Your task to perform on an android device: Empty the shopping cart on target.com. Image 0: 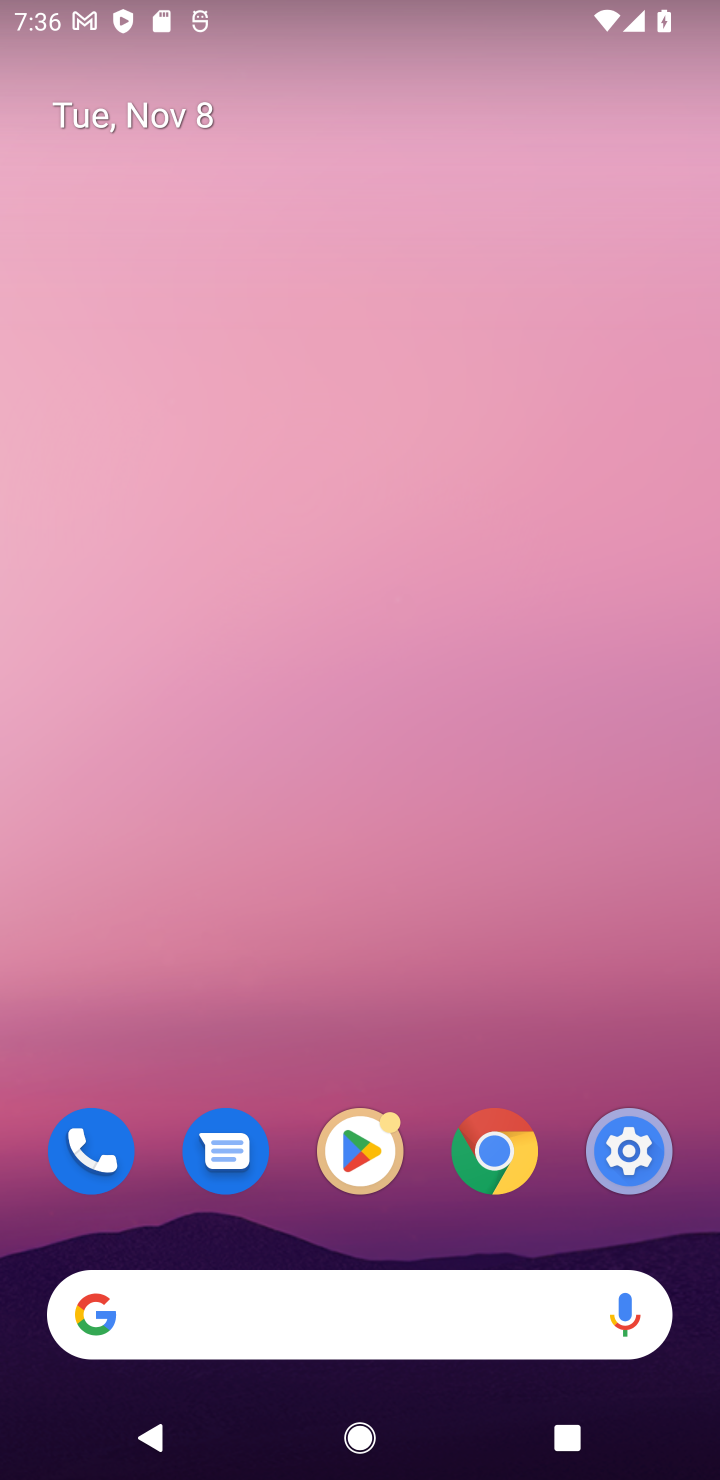
Step 0: click (377, 1316)
Your task to perform on an android device: Empty the shopping cart on target.com. Image 1: 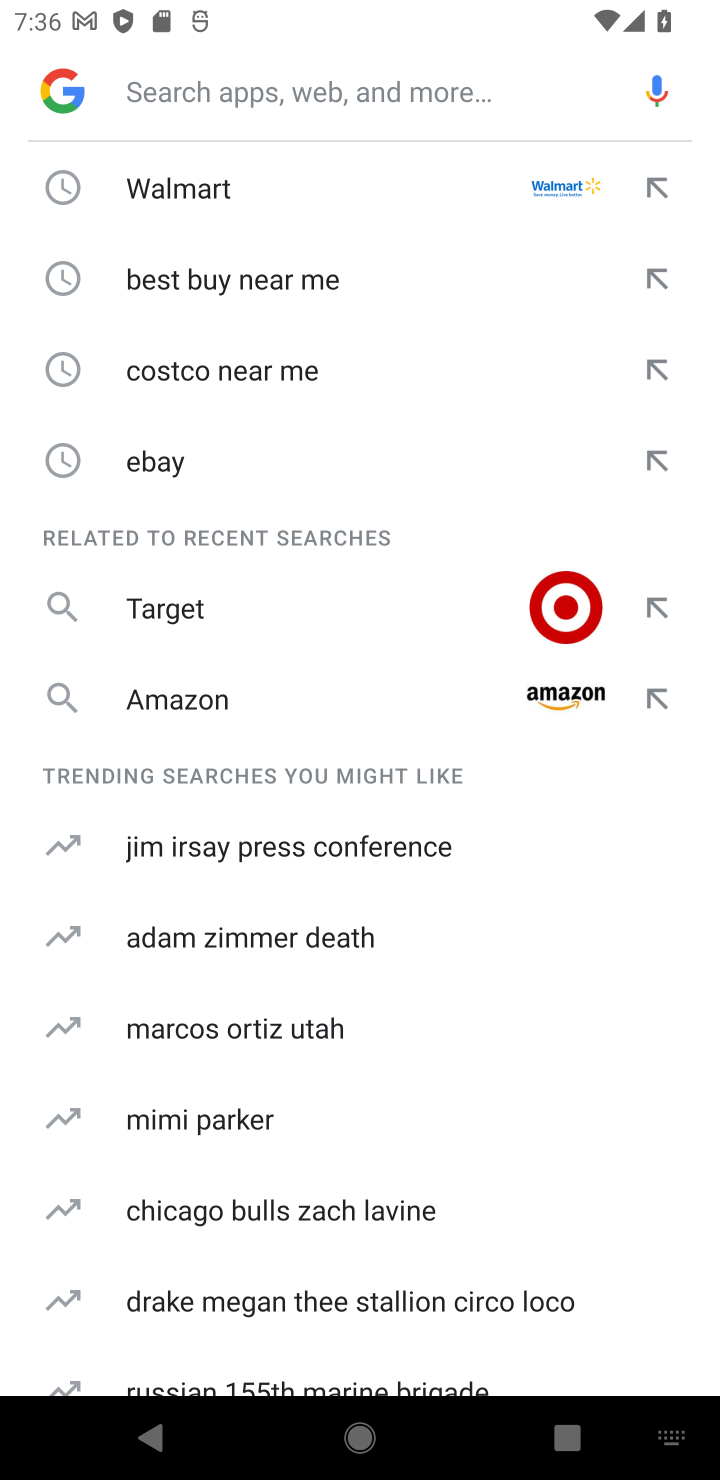
Step 1: type "taget"
Your task to perform on an android device: Empty the shopping cart on target.com. Image 2: 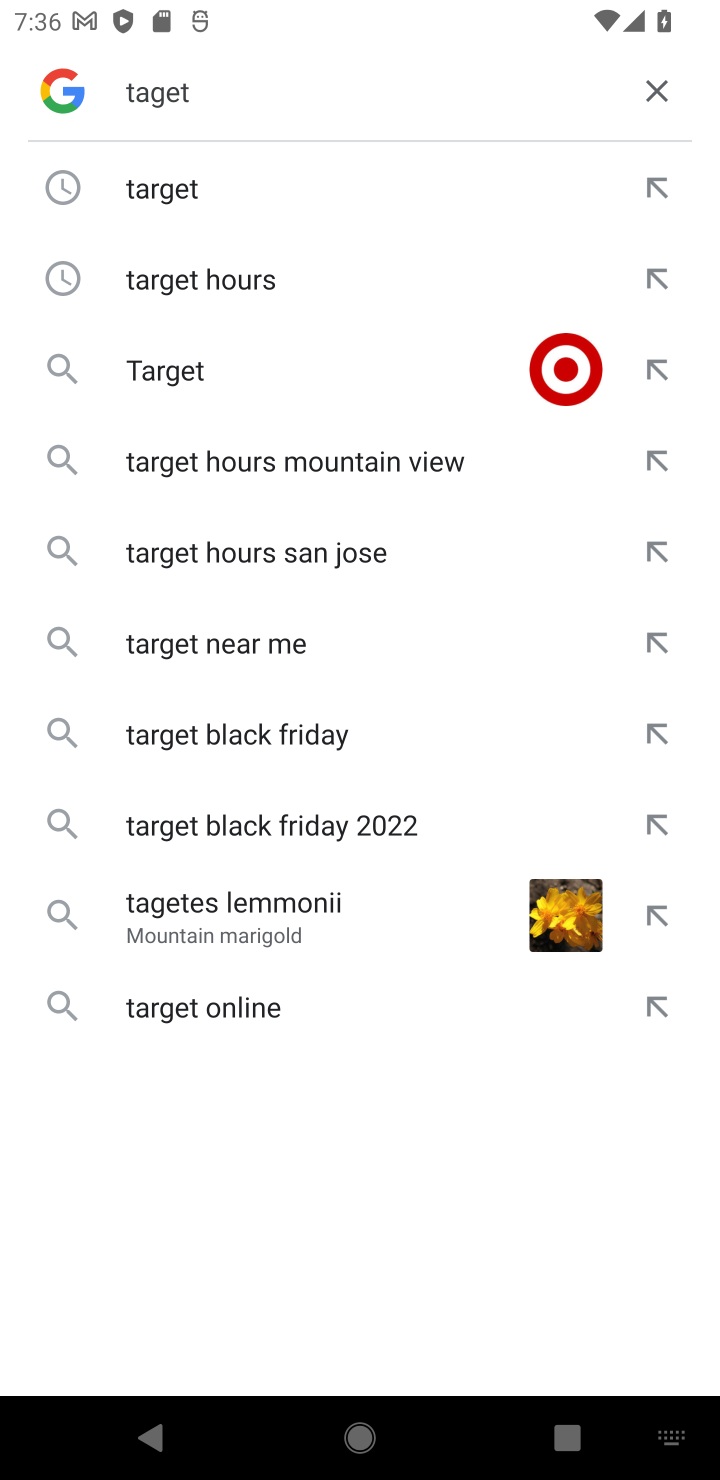
Step 2: click (248, 403)
Your task to perform on an android device: Empty the shopping cart on target.com. Image 3: 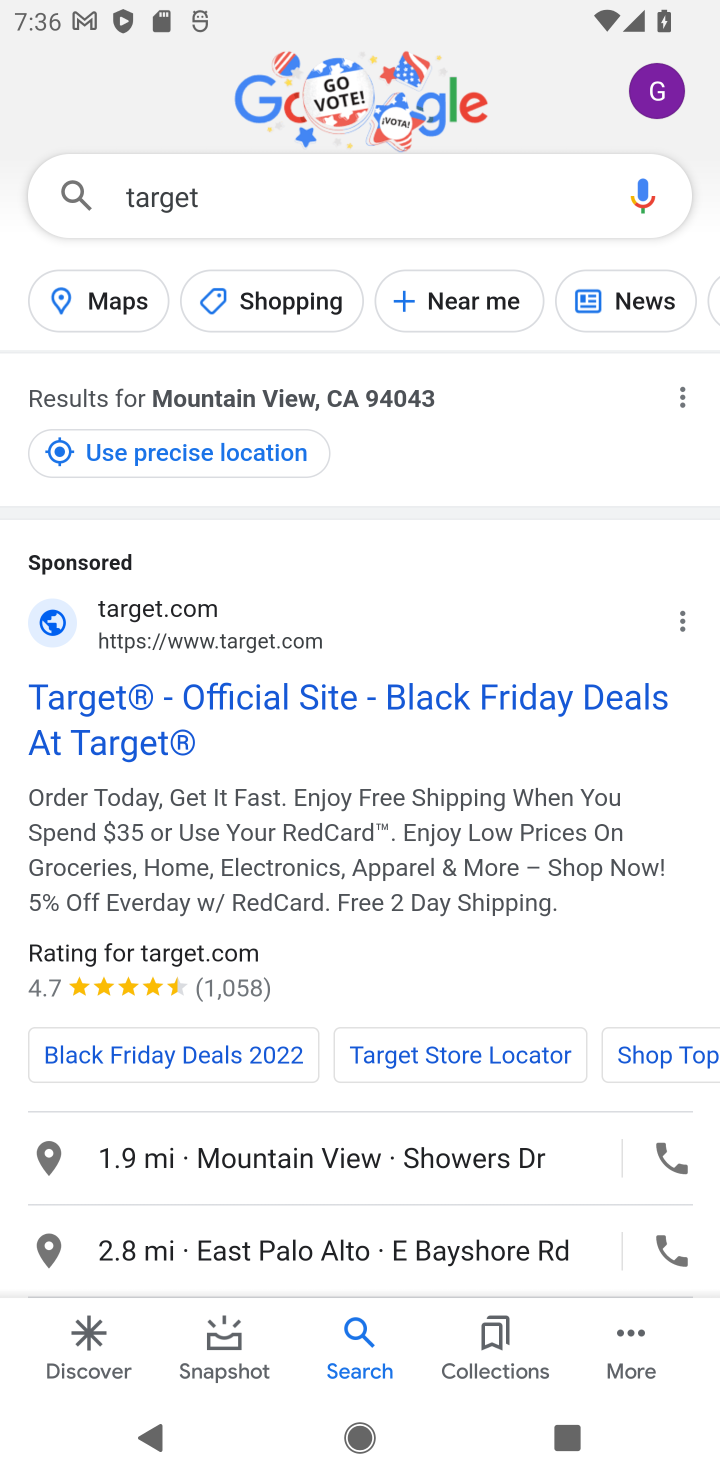
Step 3: click (226, 684)
Your task to perform on an android device: Empty the shopping cart on target.com. Image 4: 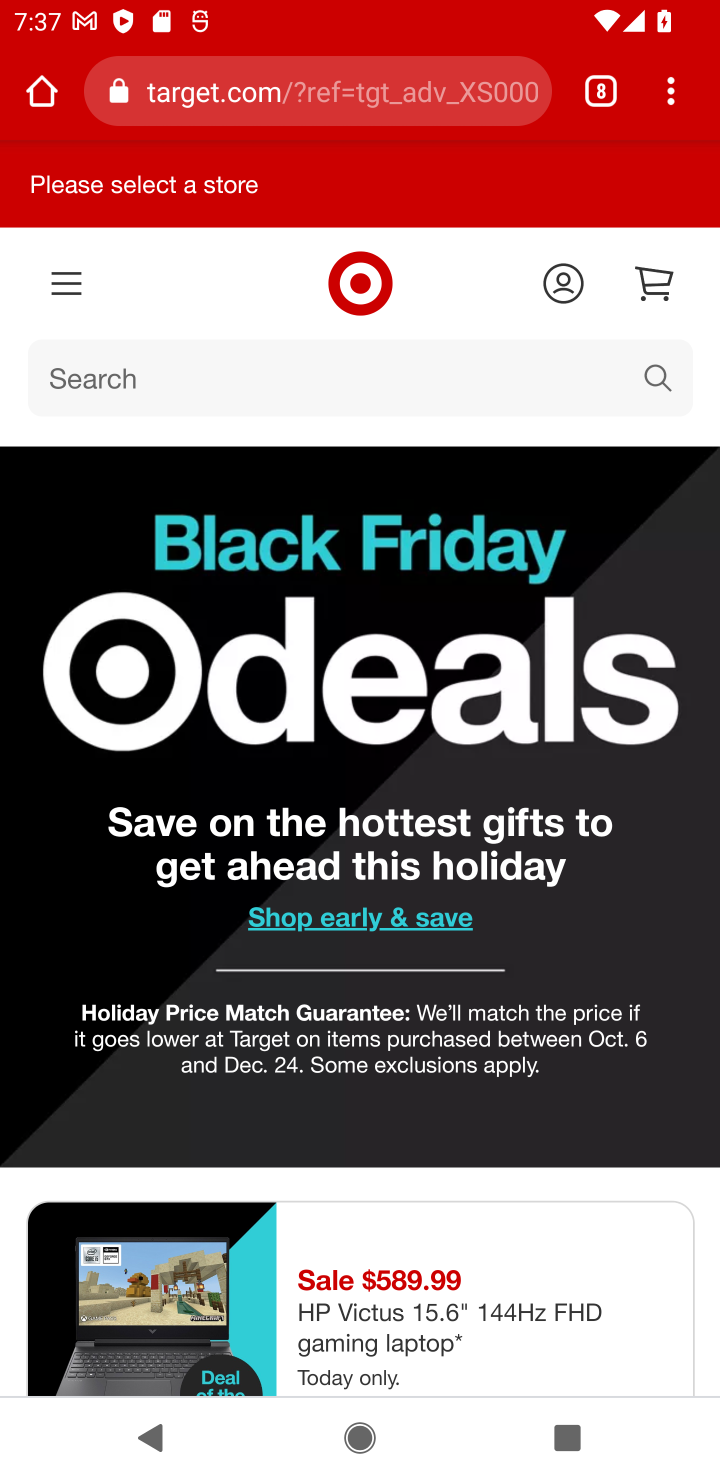
Step 4: task complete